Your task to perform on an android device: open sync settings in chrome Image 0: 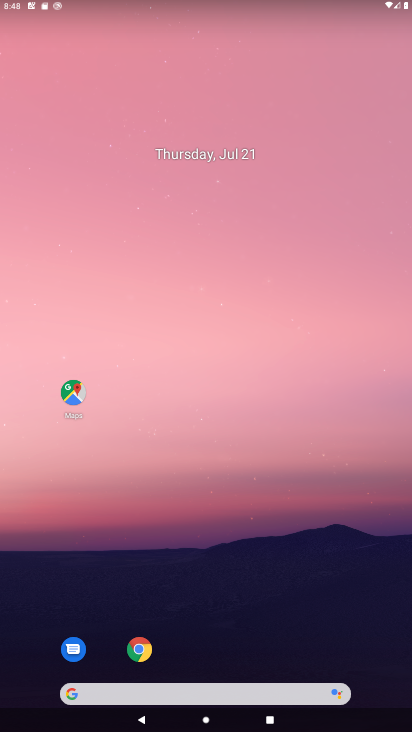
Step 0: click (138, 650)
Your task to perform on an android device: open sync settings in chrome Image 1: 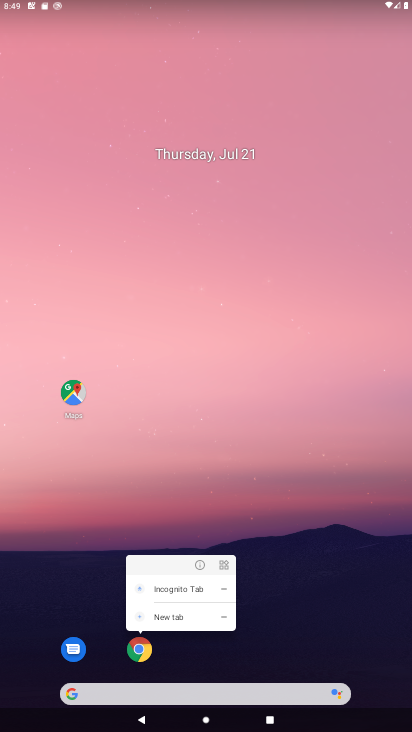
Step 1: click (140, 652)
Your task to perform on an android device: open sync settings in chrome Image 2: 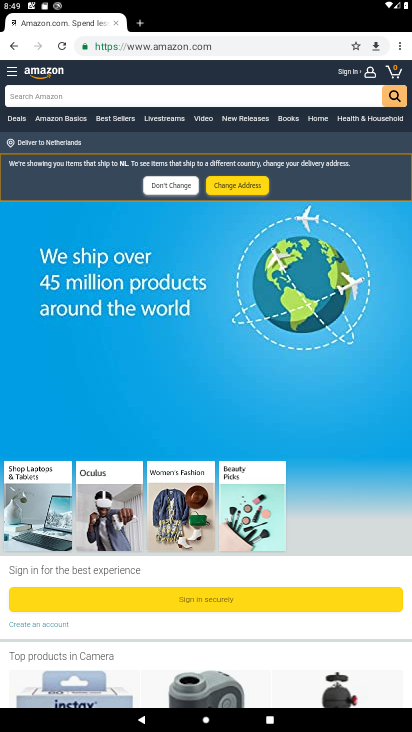
Step 2: click (399, 50)
Your task to perform on an android device: open sync settings in chrome Image 3: 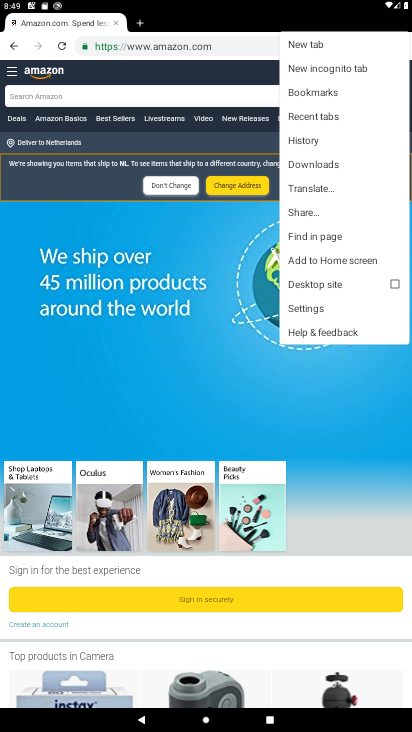
Step 3: click (311, 304)
Your task to perform on an android device: open sync settings in chrome Image 4: 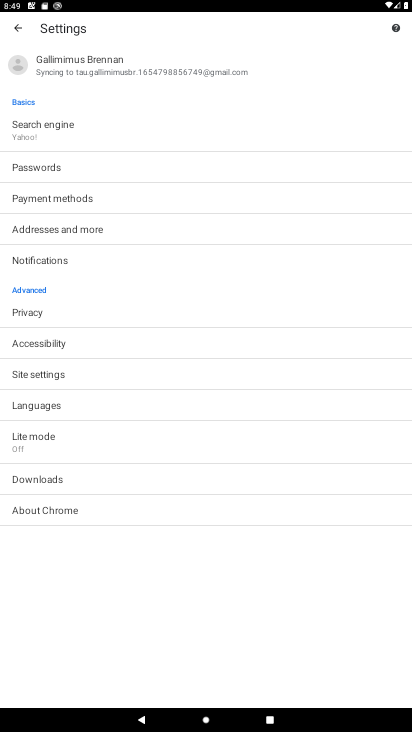
Step 4: click (31, 379)
Your task to perform on an android device: open sync settings in chrome Image 5: 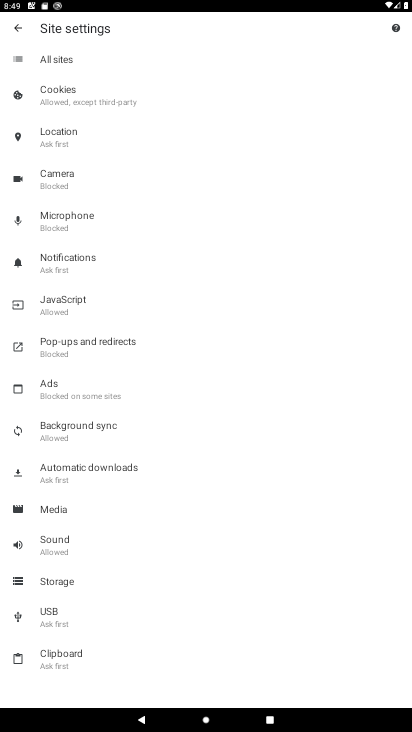
Step 5: click (89, 429)
Your task to perform on an android device: open sync settings in chrome Image 6: 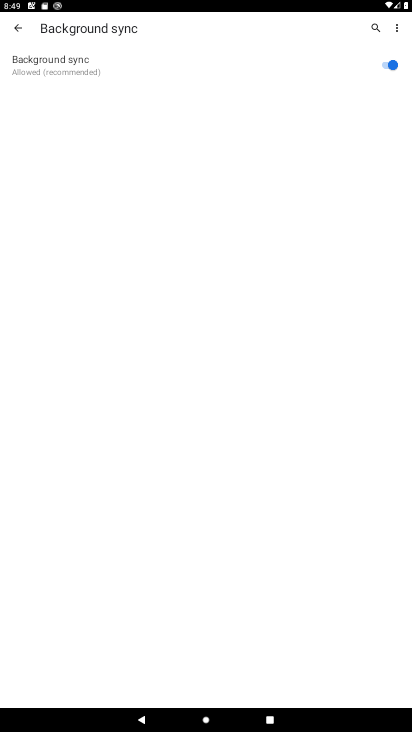
Step 6: task complete